Your task to perform on an android device: turn off translation in the chrome app Image 0: 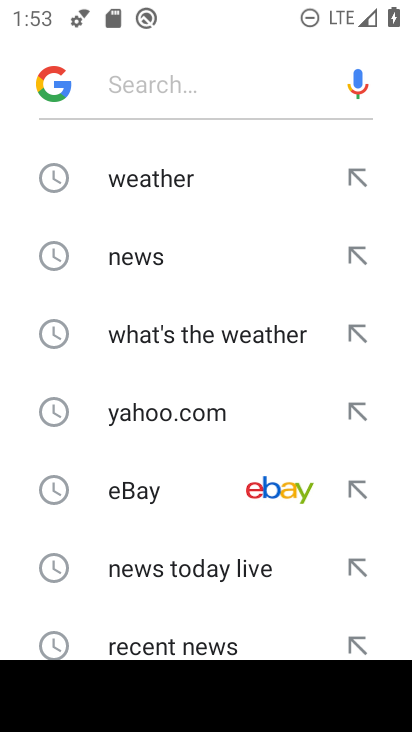
Step 0: press home button
Your task to perform on an android device: turn off translation in the chrome app Image 1: 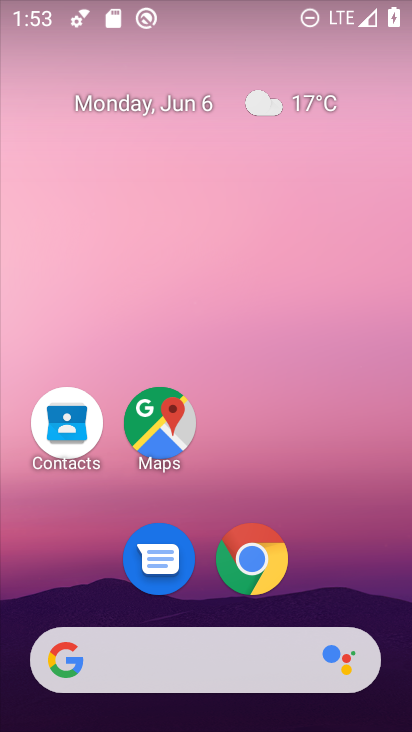
Step 1: drag from (240, 609) to (294, 98)
Your task to perform on an android device: turn off translation in the chrome app Image 2: 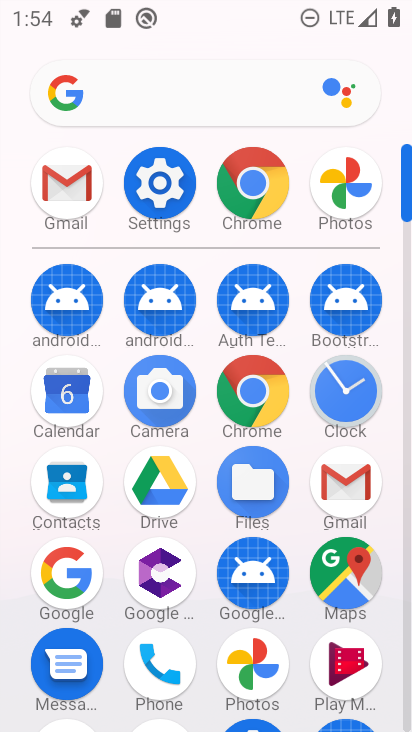
Step 2: click (237, 203)
Your task to perform on an android device: turn off translation in the chrome app Image 3: 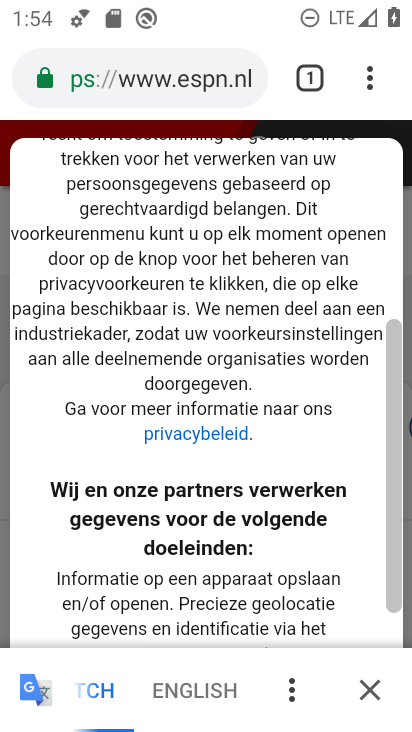
Step 3: click (370, 76)
Your task to perform on an android device: turn off translation in the chrome app Image 4: 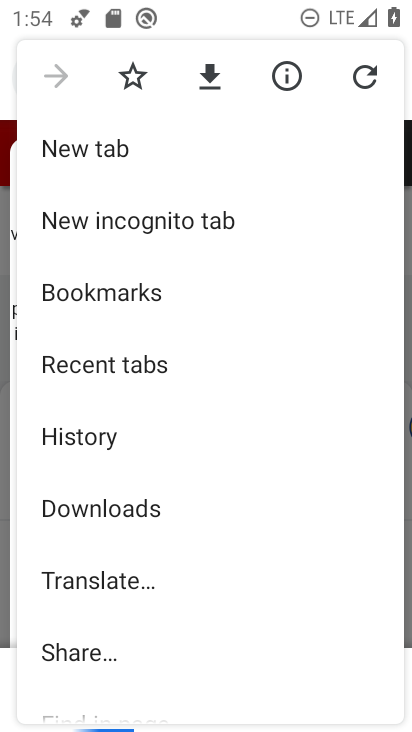
Step 4: click (191, 597)
Your task to perform on an android device: turn off translation in the chrome app Image 5: 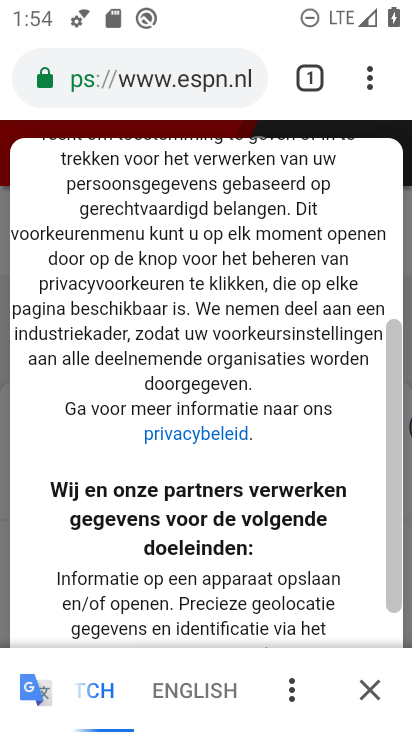
Step 5: click (298, 684)
Your task to perform on an android device: turn off translation in the chrome app Image 6: 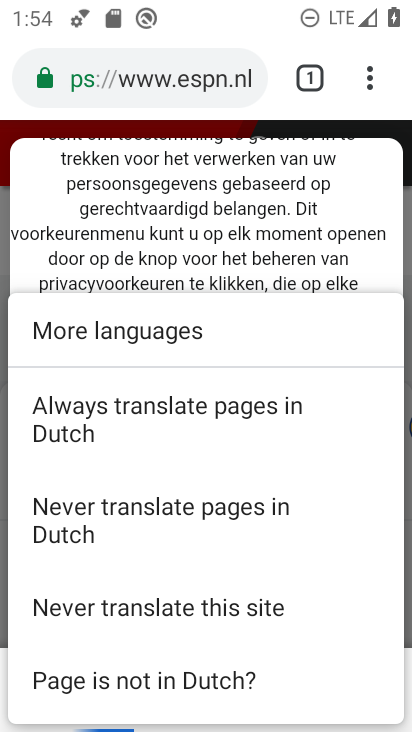
Step 6: click (260, 587)
Your task to perform on an android device: turn off translation in the chrome app Image 7: 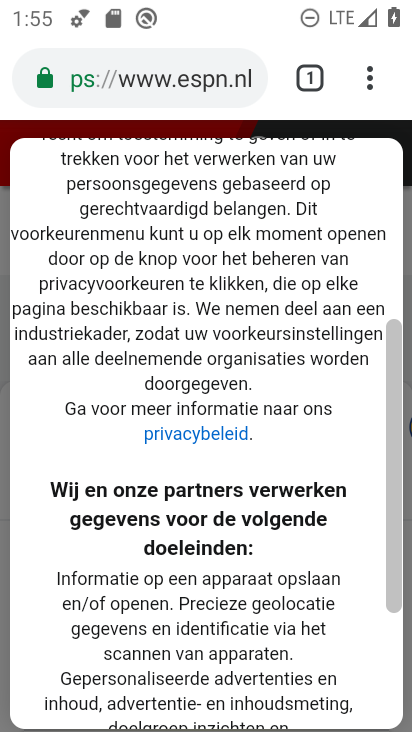
Step 7: task complete